Your task to perform on an android device: Go to Amazon Image 0: 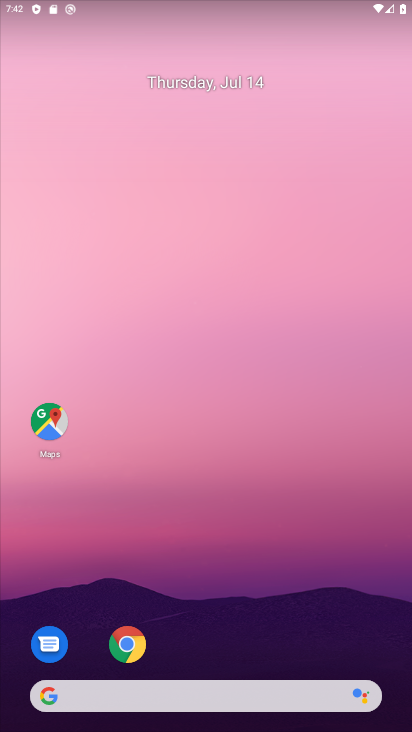
Step 0: click (126, 635)
Your task to perform on an android device: Go to Amazon Image 1: 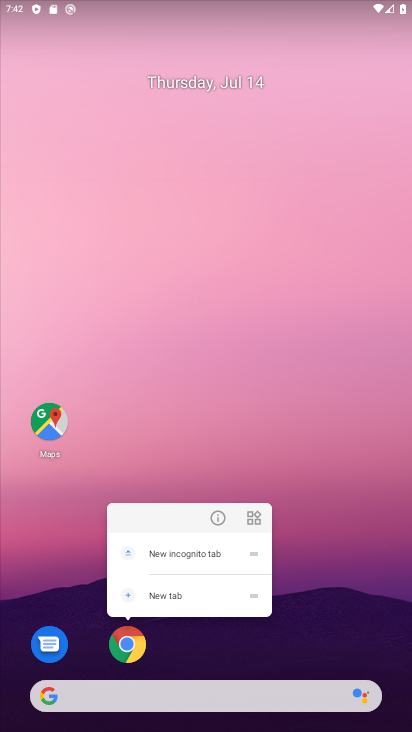
Step 1: click (133, 641)
Your task to perform on an android device: Go to Amazon Image 2: 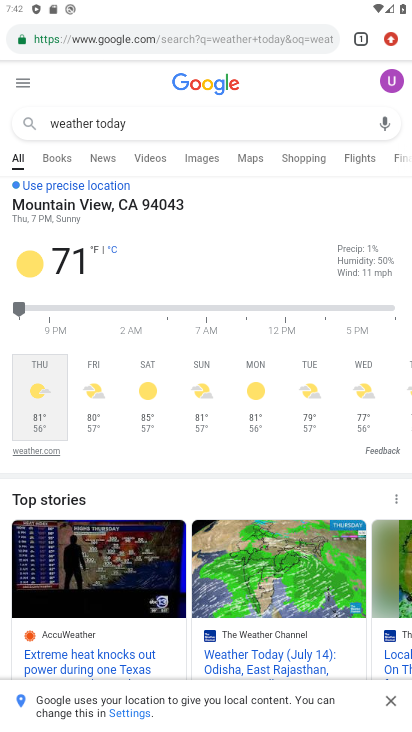
Step 2: click (278, 42)
Your task to perform on an android device: Go to Amazon Image 3: 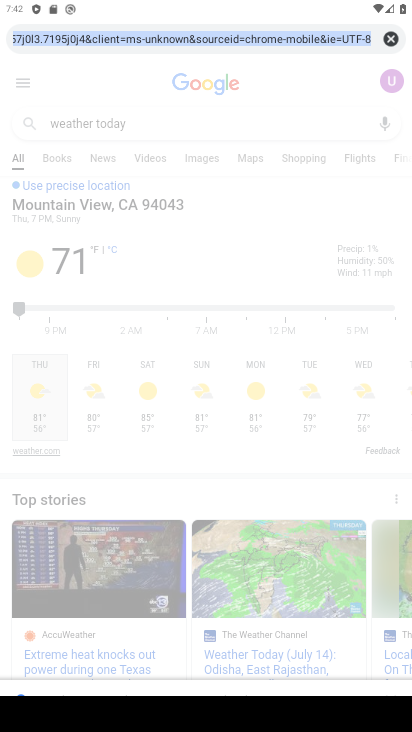
Step 3: click (387, 36)
Your task to perform on an android device: Go to Amazon Image 4: 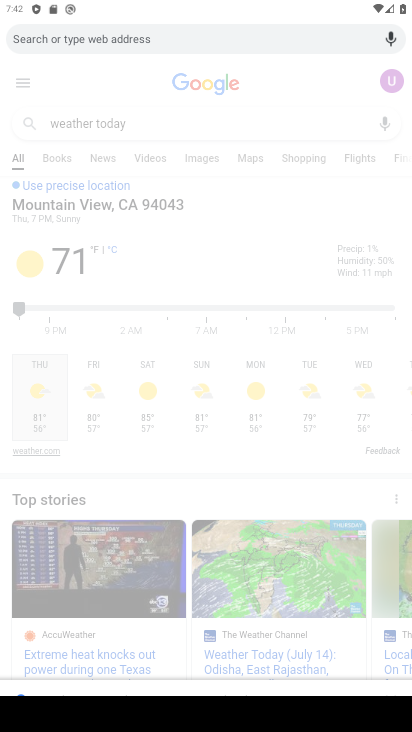
Step 4: click (268, 43)
Your task to perform on an android device: Go to Amazon Image 5: 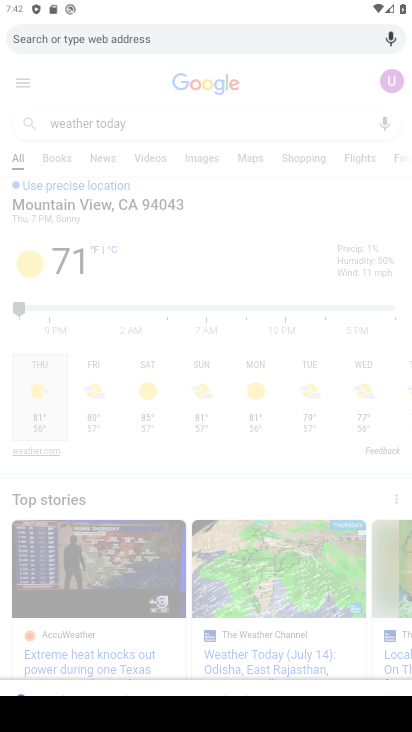
Step 5: type "amazon"
Your task to perform on an android device: Go to Amazon Image 6: 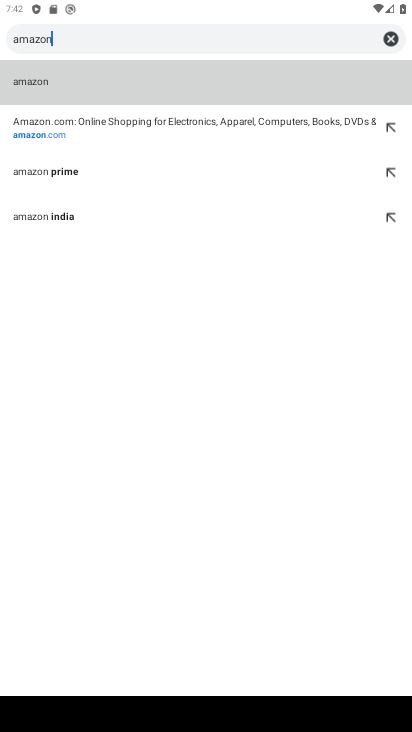
Step 6: click (150, 93)
Your task to perform on an android device: Go to Amazon Image 7: 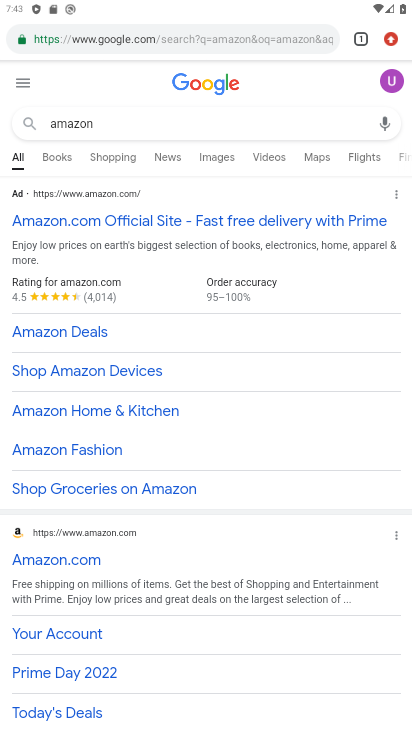
Step 7: click (81, 562)
Your task to perform on an android device: Go to Amazon Image 8: 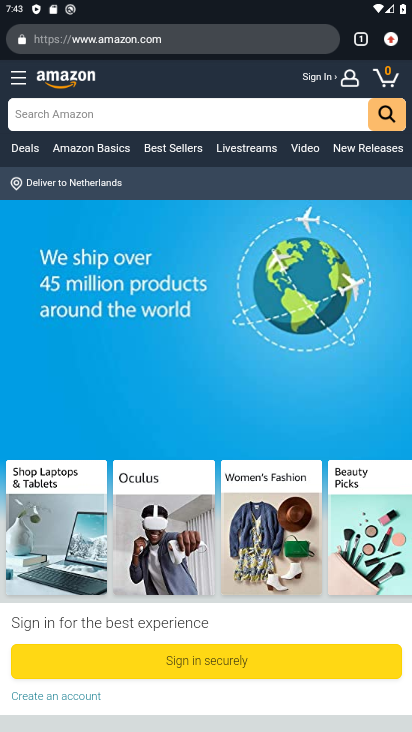
Step 8: task complete